Your task to perform on an android device: Open my contact list Image 0: 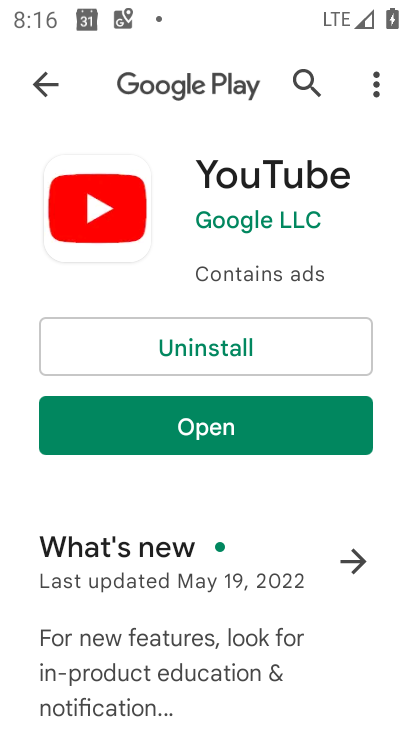
Step 0: press home button
Your task to perform on an android device: Open my contact list Image 1: 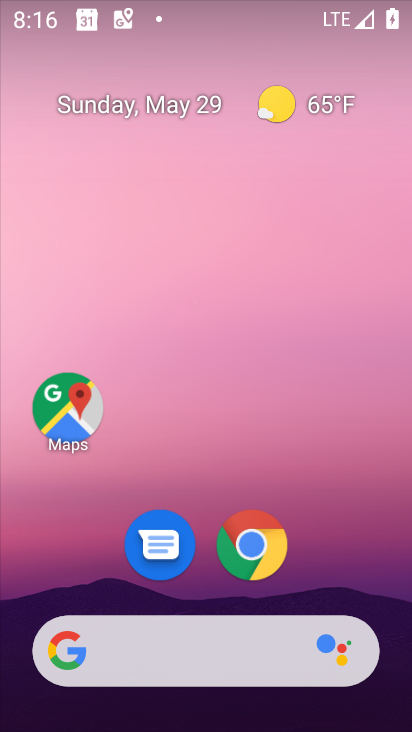
Step 1: drag from (210, 596) to (226, 304)
Your task to perform on an android device: Open my contact list Image 2: 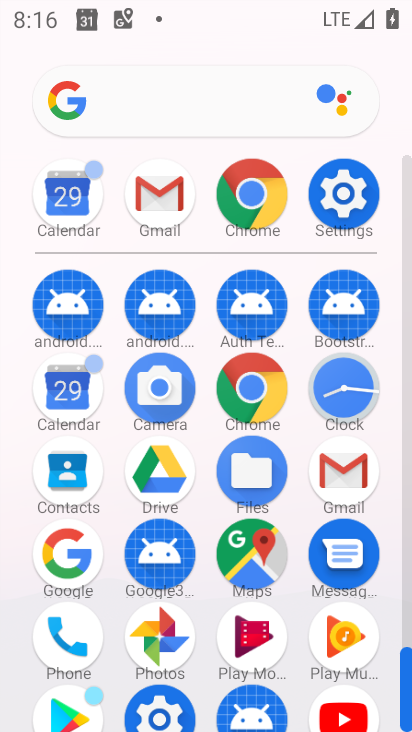
Step 2: click (71, 469)
Your task to perform on an android device: Open my contact list Image 3: 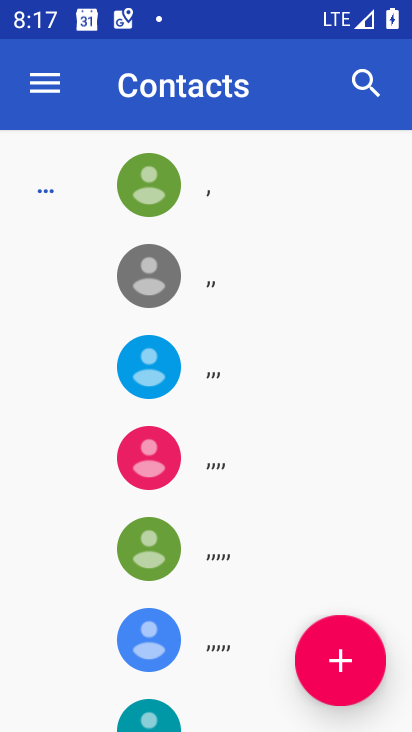
Step 3: task complete